Your task to perform on an android device: allow notifications from all sites in the chrome app Image 0: 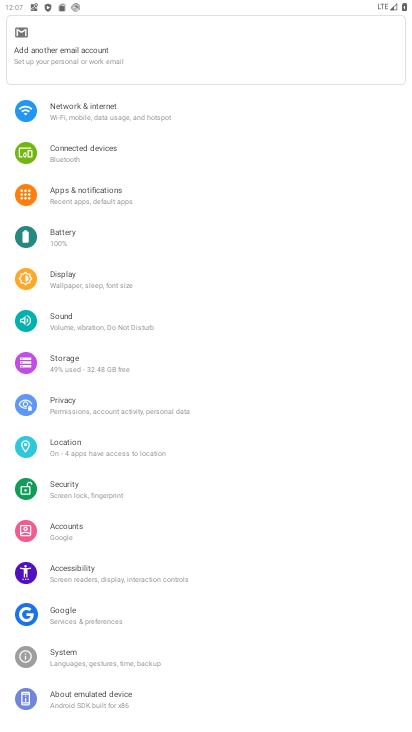
Step 0: press home button
Your task to perform on an android device: allow notifications from all sites in the chrome app Image 1: 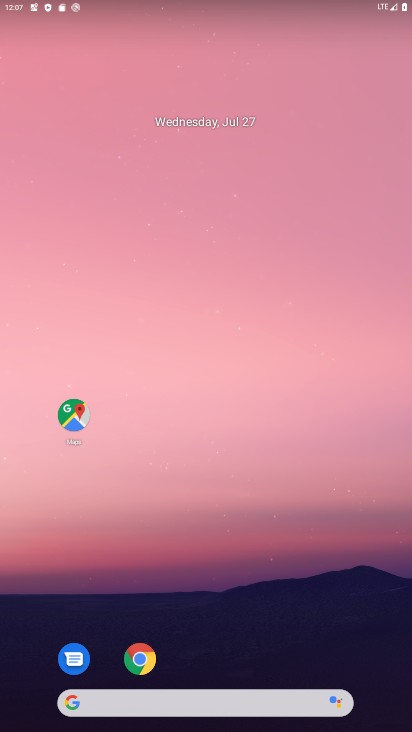
Step 1: click (148, 653)
Your task to perform on an android device: allow notifications from all sites in the chrome app Image 2: 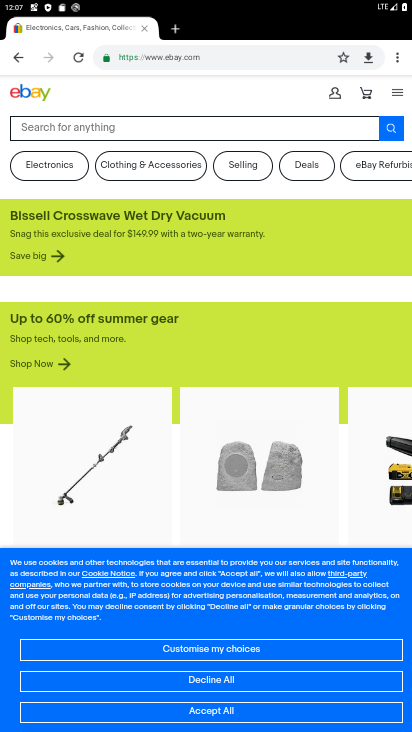
Step 2: click (395, 56)
Your task to perform on an android device: allow notifications from all sites in the chrome app Image 3: 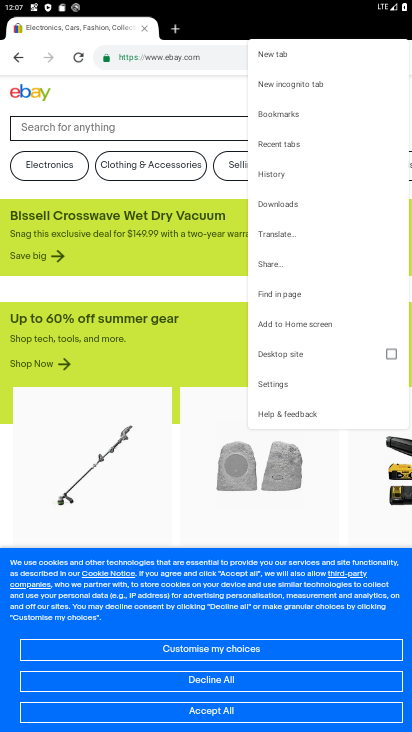
Step 3: click (289, 386)
Your task to perform on an android device: allow notifications from all sites in the chrome app Image 4: 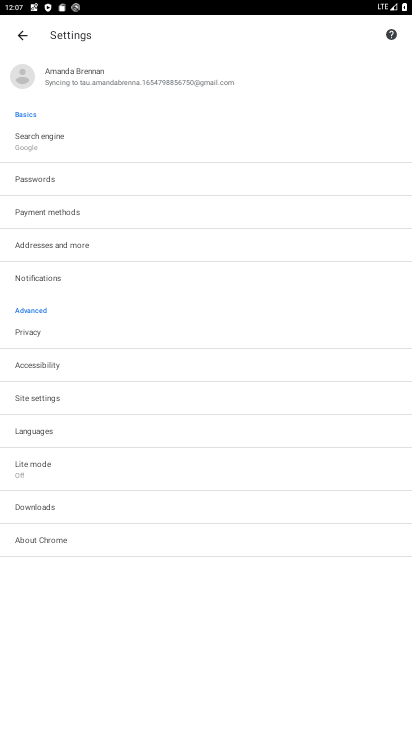
Step 4: click (25, 282)
Your task to perform on an android device: allow notifications from all sites in the chrome app Image 5: 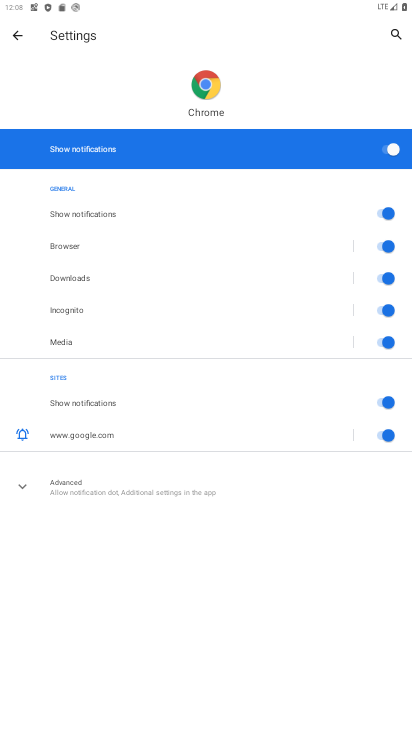
Step 5: task complete